Your task to perform on an android device: change alarm snooze length Image 0: 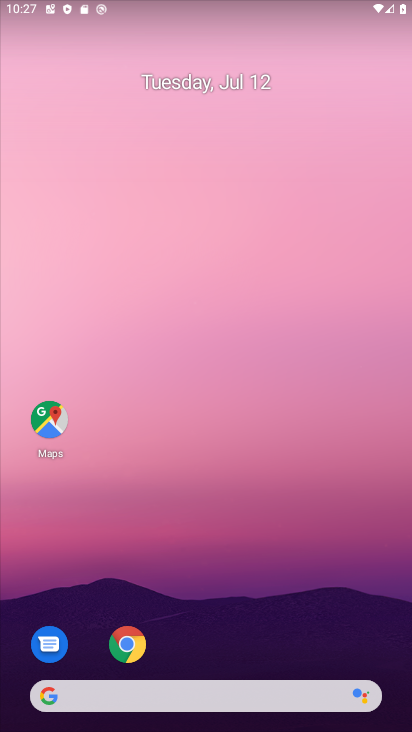
Step 0: drag from (240, 691) to (376, 7)
Your task to perform on an android device: change alarm snooze length Image 1: 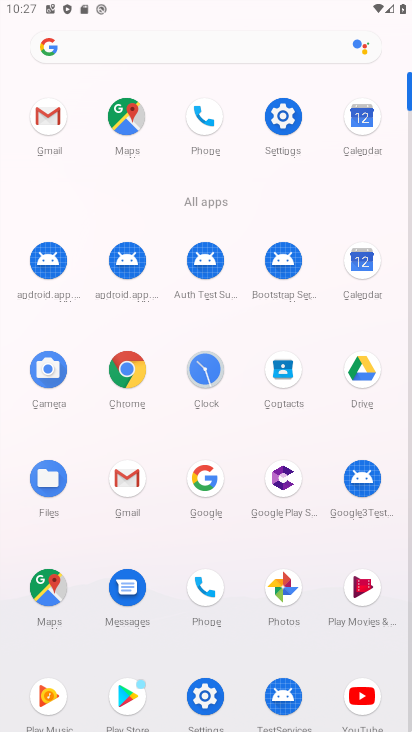
Step 1: click (213, 376)
Your task to perform on an android device: change alarm snooze length Image 2: 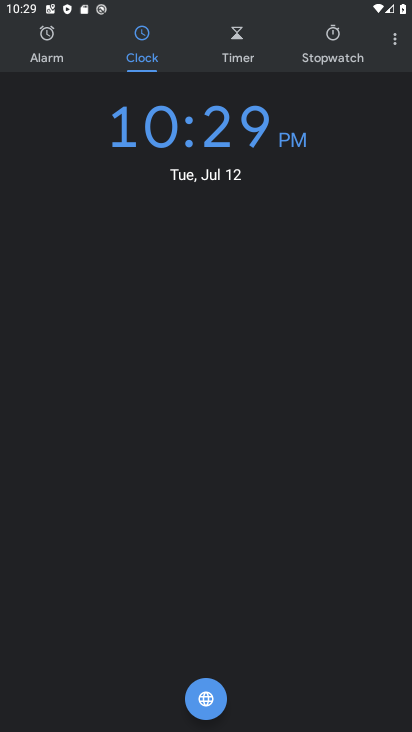
Step 2: click (44, 44)
Your task to perform on an android device: change alarm snooze length Image 3: 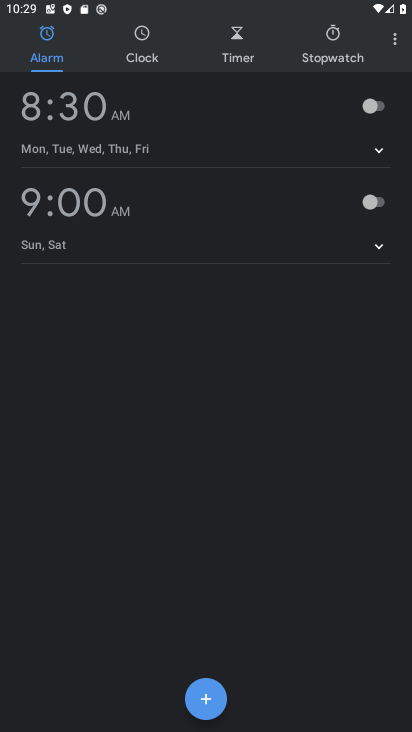
Step 3: click (396, 32)
Your task to perform on an android device: change alarm snooze length Image 4: 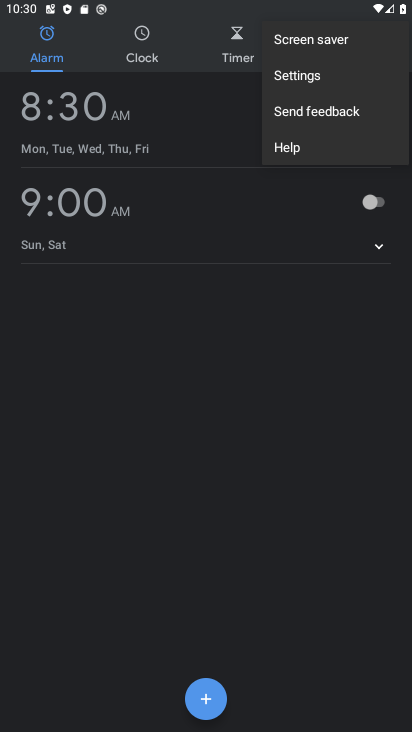
Step 4: click (326, 83)
Your task to perform on an android device: change alarm snooze length Image 5: 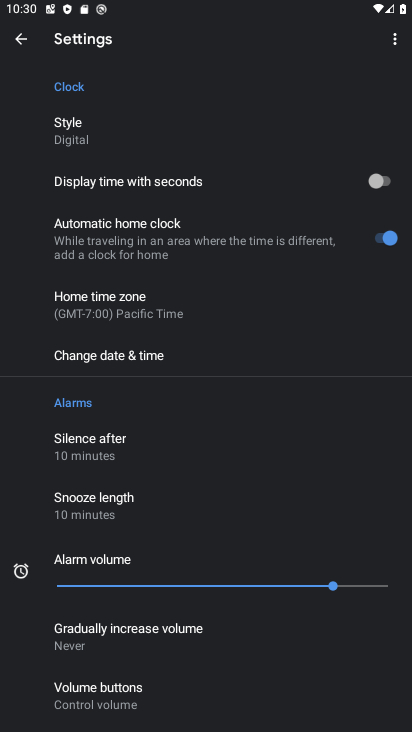
Step 5: click (139, 501)
Your task to perform on an android device: change alarm snooze length Image 6: 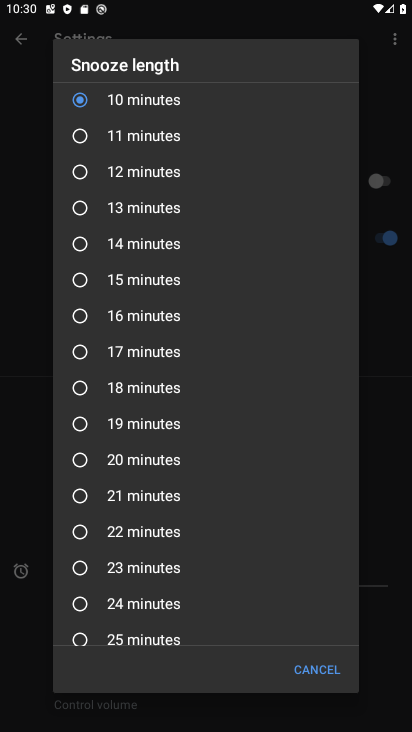
Step 6: click (160, 321)
Your task to perform on an android device: change alarm snooze length Image 7: 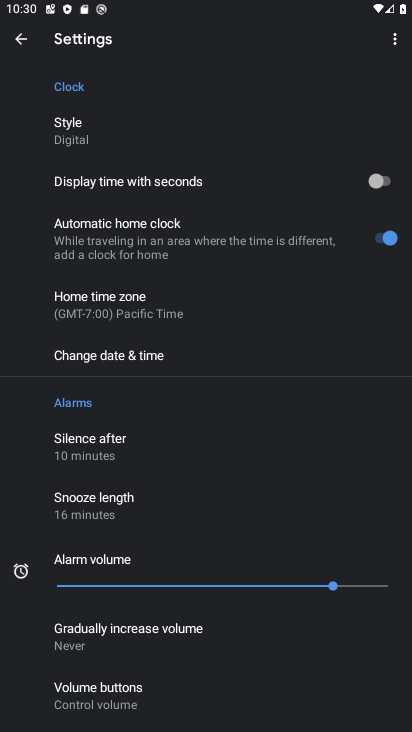
Step 7: task complete